Your task to perform on an android device: Search for vegetarian restaurants on Maps Image 0: 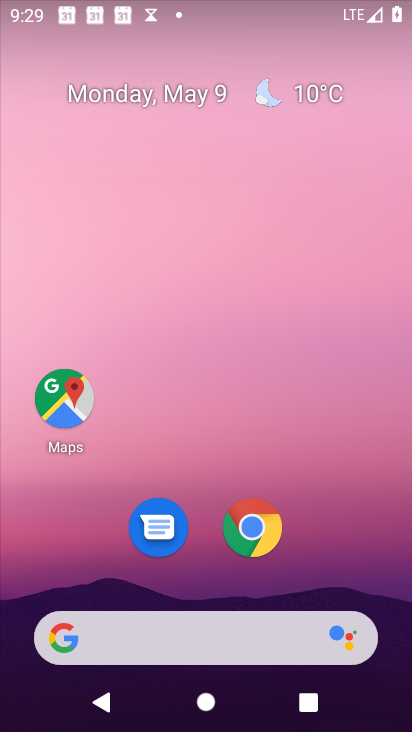
Step 0: drag from (227, 588) to (238, 12)
Your task to perform on an android device: Search for vegetarian restaurants on Maps Image 1: 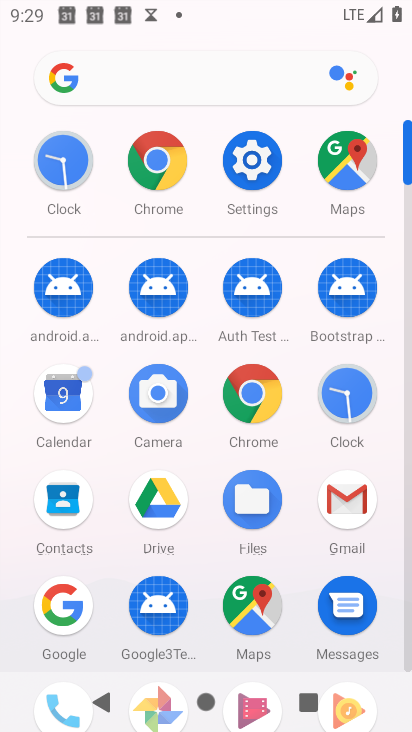
Step 1: click (348, 183)
Your task to perform on an android device: Search for vegetarian restaurants on Maps Image 2: 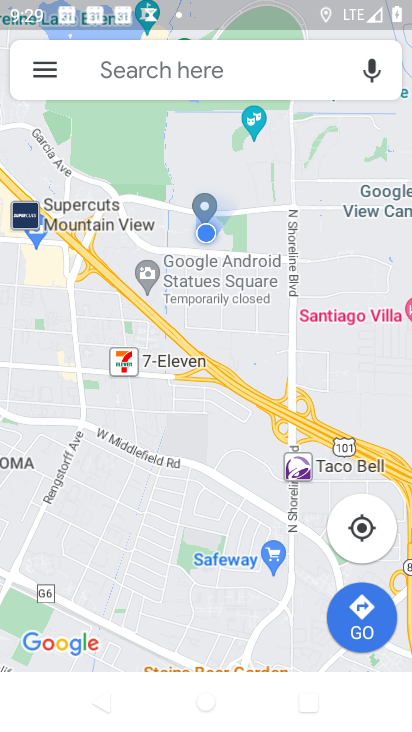
Step 2: click (202, 77)
Your task to perform on an android device: Search for vegetarian restaurants on Maps Image 3: 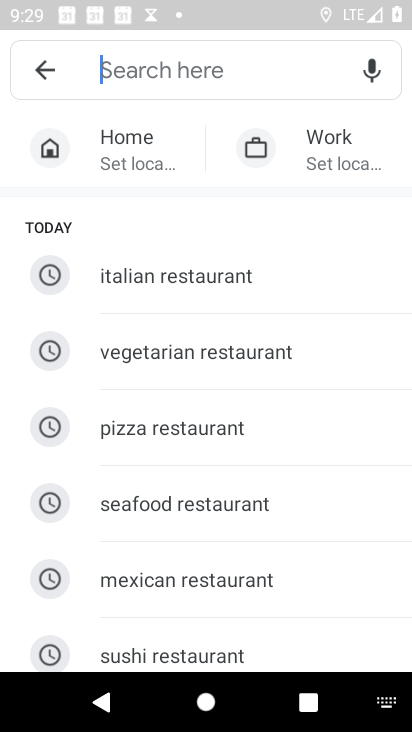
Step 3: type "vegetarian restaurants"
Your task to perform on an android device: Search for vegetarian restaurants on Maps Image 4: 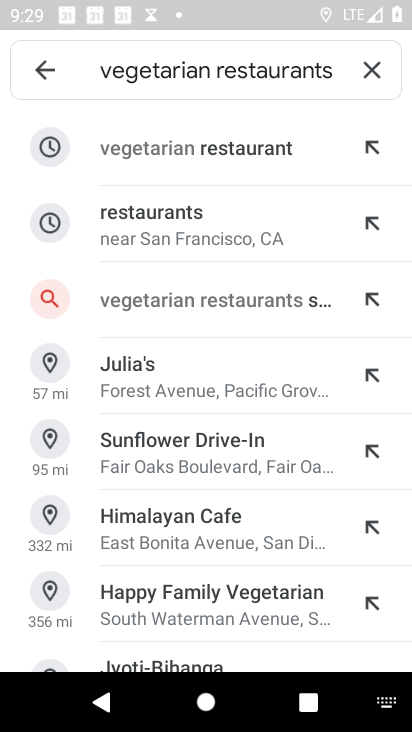
Step 4: type "'"
Your task to perform on an android device: Search for vegetarian restaurants on Maps Image 5: 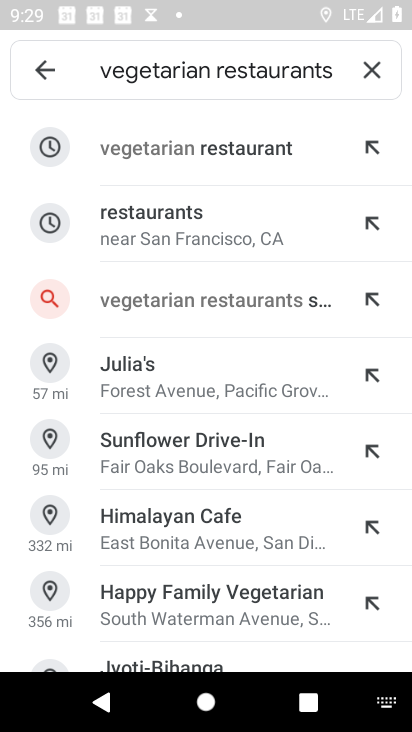
Step 5: click (181, 155)
Your task to perform on an android device: Search for vegetarian restaurants on Maps Image 6: 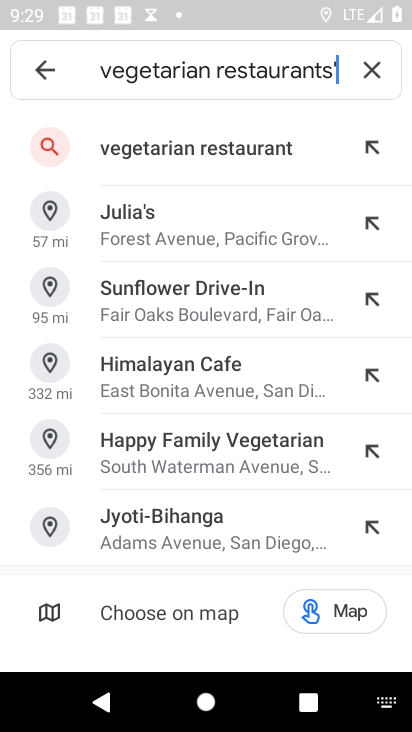
Step 6: click (186, 175)
Your task to perform on an android device: Search for vegetarian restaurants on Maps Image 7: 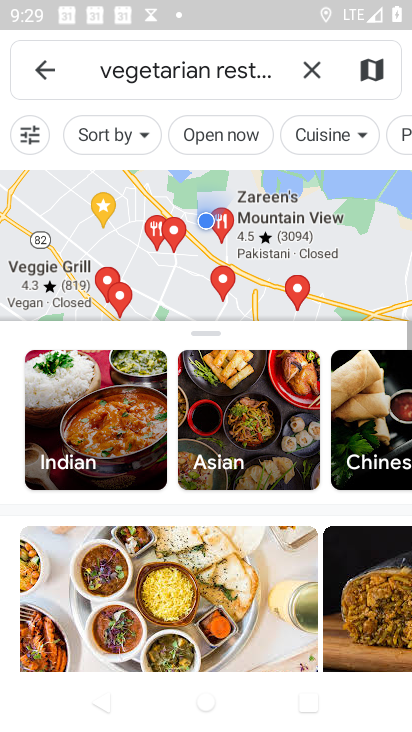
Step 7: task complete